Your task to perform on an android device: Go to notification settings Image 0: 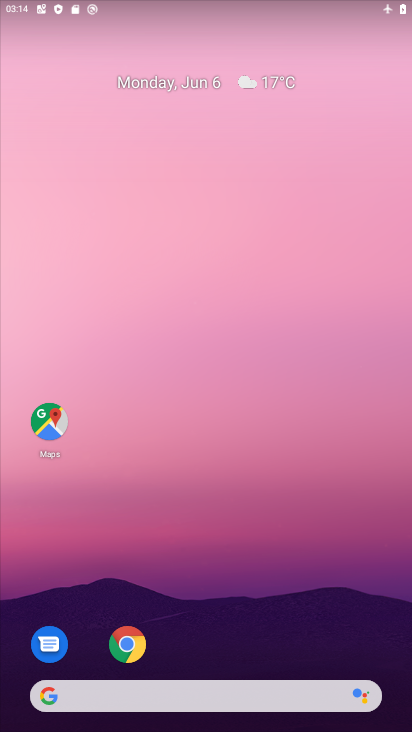
Step 0: drag from (400, 708) to (342, 87)
Your task to perform on an android device: Go to notification settings Image 1: 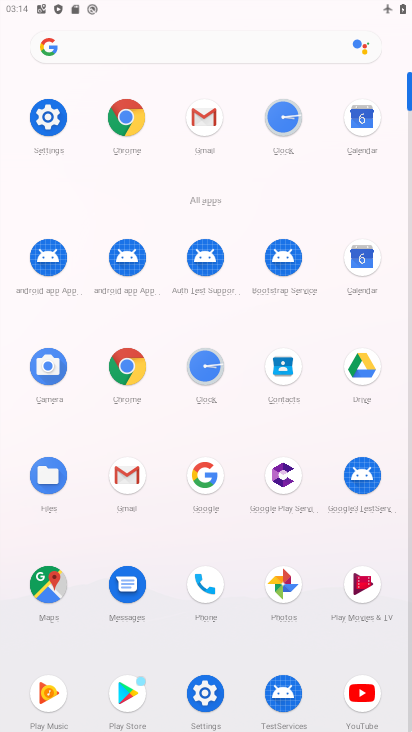
Step 1: click (50, 118)
Your task to perform on an android device: Go to notification settings Image 2: 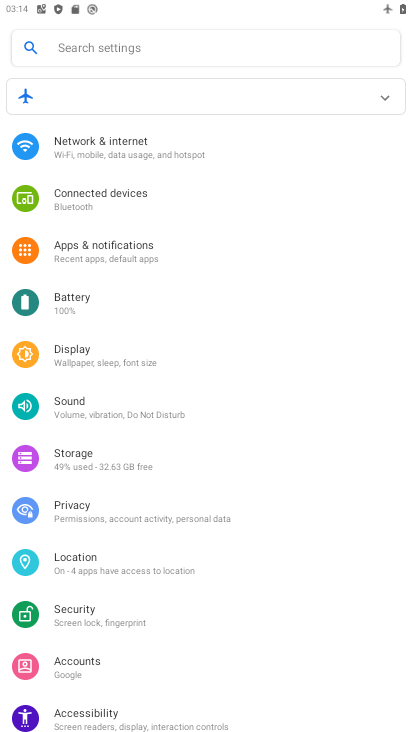
Step 2: click (93, 253)
Your task to perform on an android device: Go to notification settings Image 3: 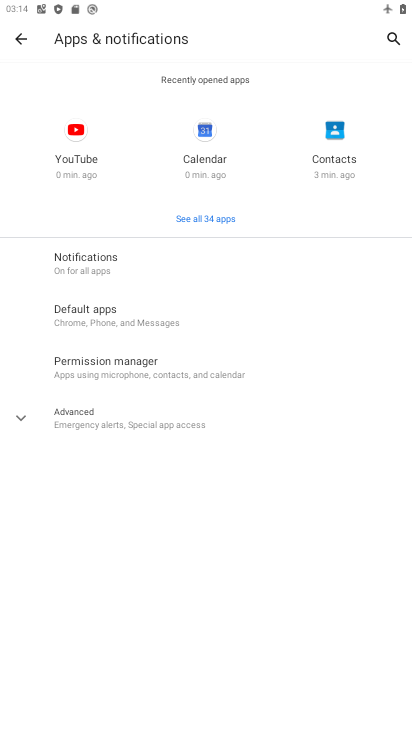
Step 3: click (85, 263)
Your task to perform on an android device: Go to notification settings Image 4: 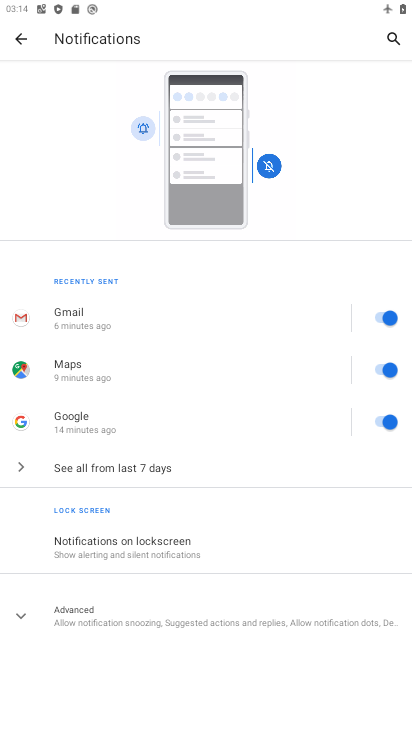
Step 4: click (137, 537)
Your task to perform on an android device: Go to notification settings Image 5: 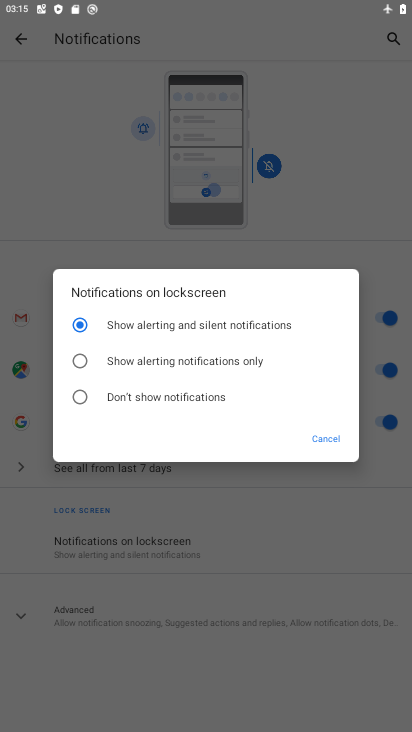
Step 5: click (128, 496)
Your task to perform on an android device: Go to notification settings Image 6: 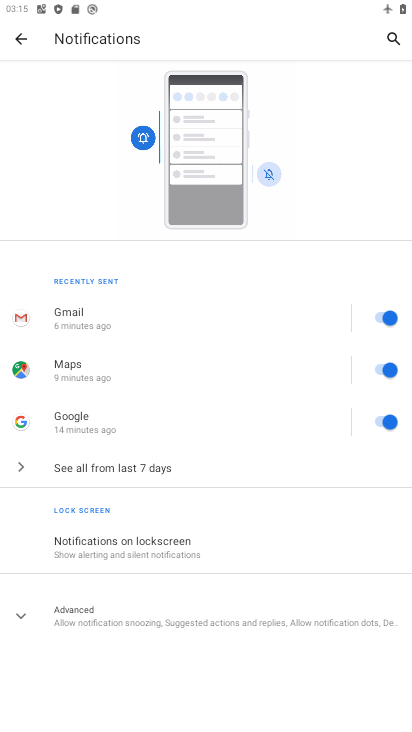
Step 6: click (22, 612)
Your task to perform on an android device: Go to notification settings Image 7: 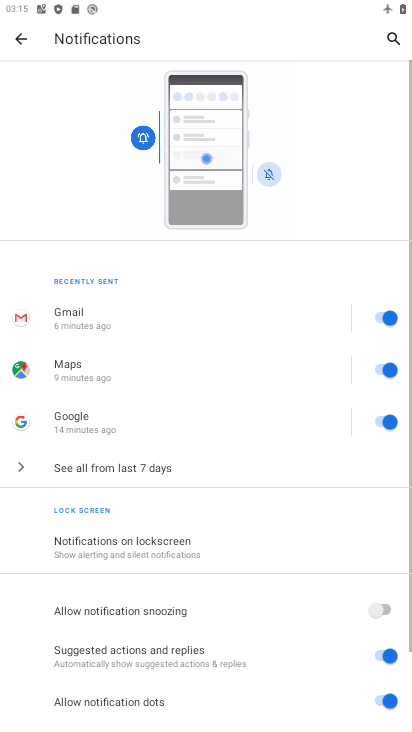
Step 7: task complete